Your task to perform on an android device: open a bookmark in the chrome app Image 0: 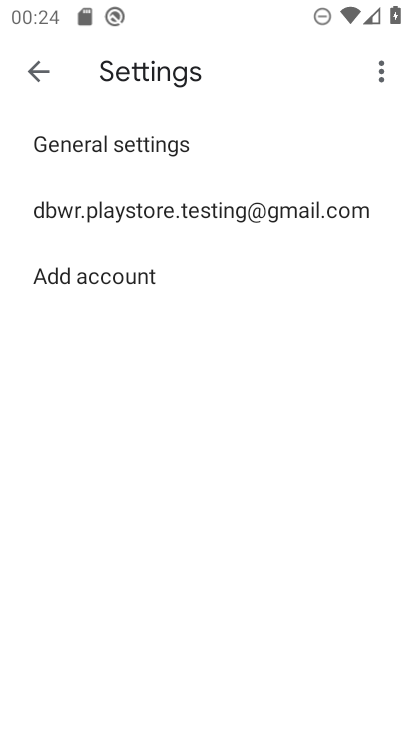
Step 0: click (40, 68)
Your task to perform on an android device: open a bookmark in the chrome app Image 1: 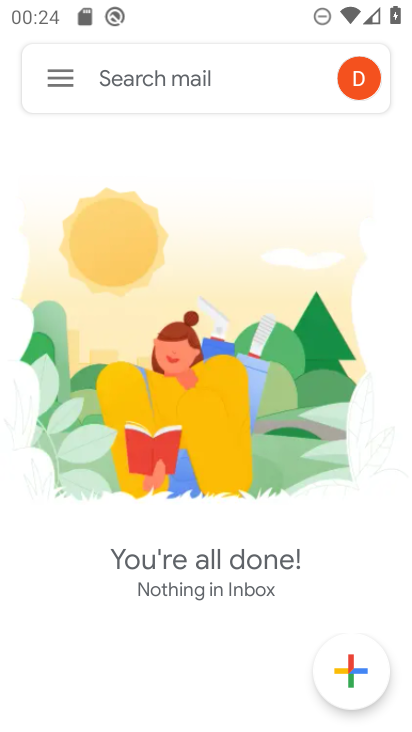
Step 1: press home button
Your task to perform on an android device: open a bookmark in the chrome app Image 2: 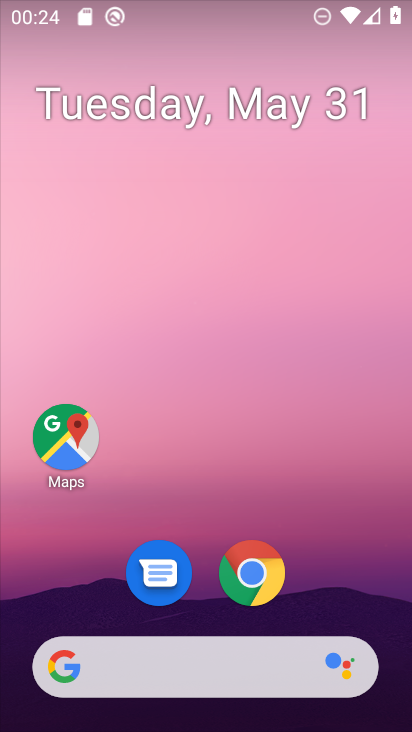
Step 2: click (257, 543)
Your task to perform on an android device: open a bookmark in the chrome app Image 3: 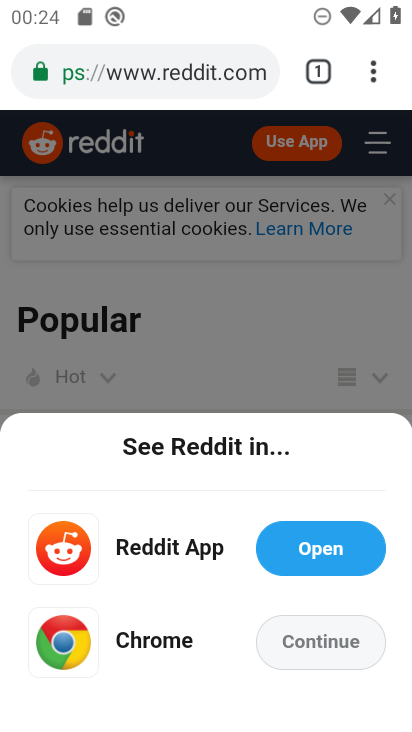
Step 3: press home button
Your task to perform on an android device: open a bookmark in the chrome app Image 4: 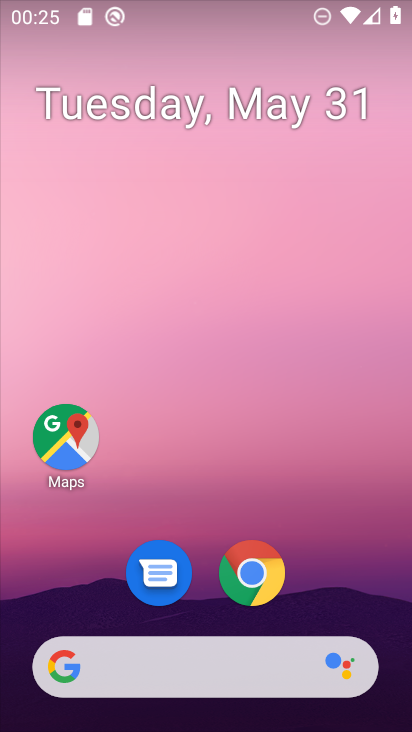
Step 4: click (260, 587)
Your task to perform on an android device: open a bookmark in the chrome app Image 5: 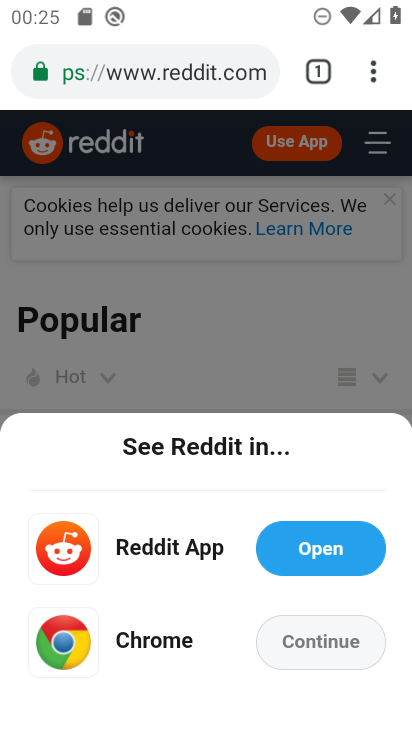
Step 5: click (377, 74)
Your task to perform on an android device: open a bookmark in the chrome app Image 6: 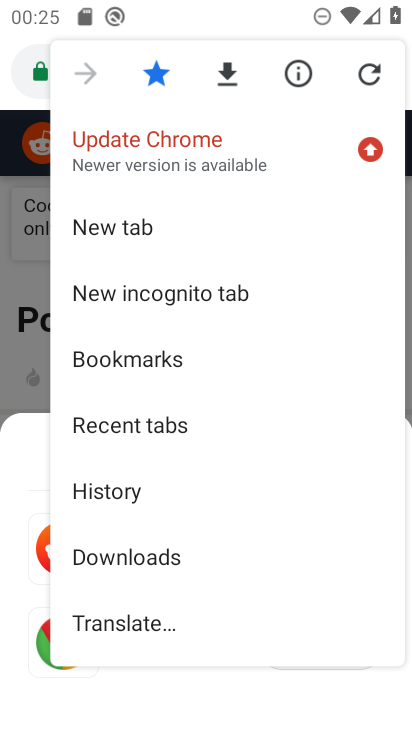
Step 6: click (175, 366)
Your task to perform on an android device: open a bookmark in the chrome app Image 7: 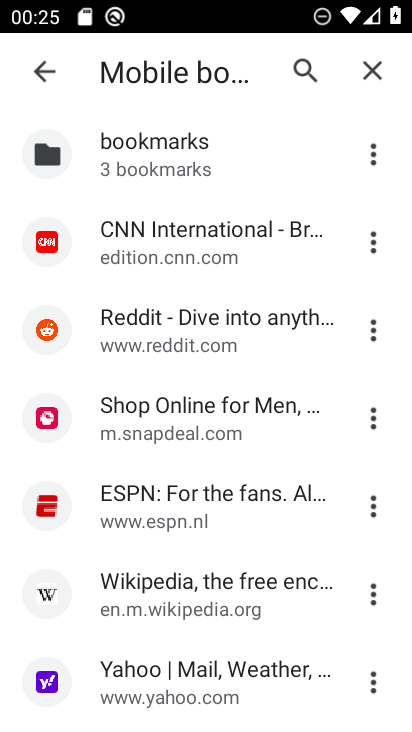
Step 7: click (182, 412)
Your task to perform on an android device: open a bookmark in the chrome app Image 8: 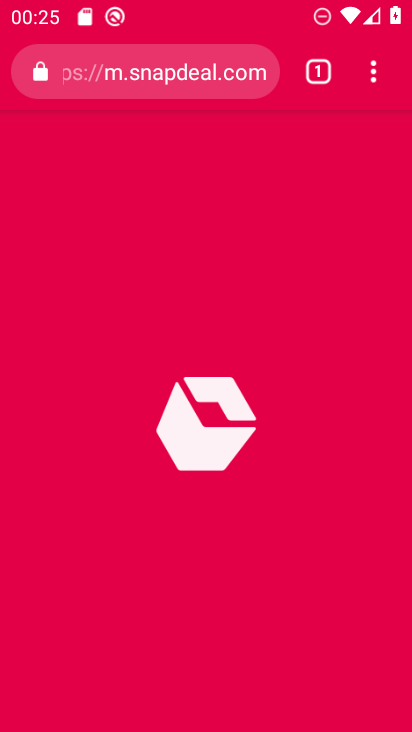
Step 8: task complete